Your task to perform on an android device: Go to Maps Image 0: 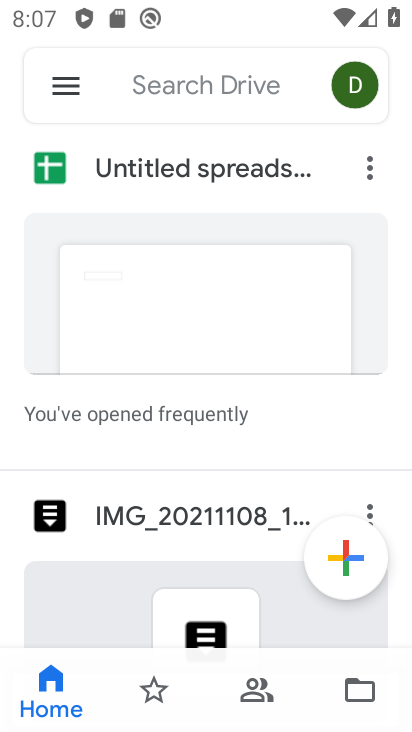
Step 0: press home button
Your task to perform on an android device: Go to Maps Image 1: 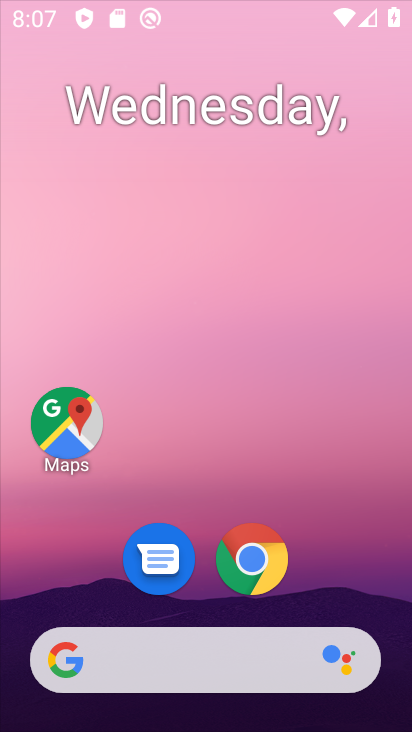
Step 1: drag from (220, 591) to (283, 120)
Your task to perform on an android device: Go to Maps Image 2: 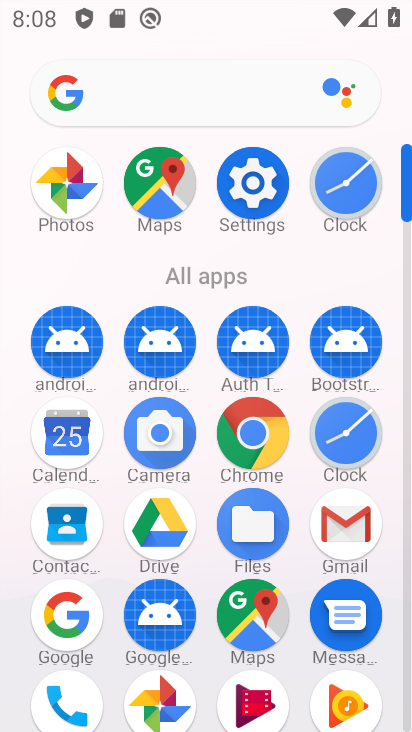
Step 2: click (258, 603)
Your task to perform on an android device: Go to Maps Image 3: 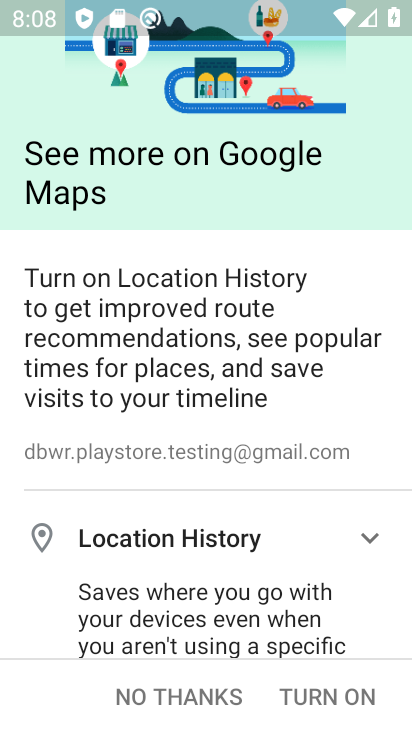
Step 3: click (337, 700)
Your task to perform on an android device: Go to Maps Image 4: 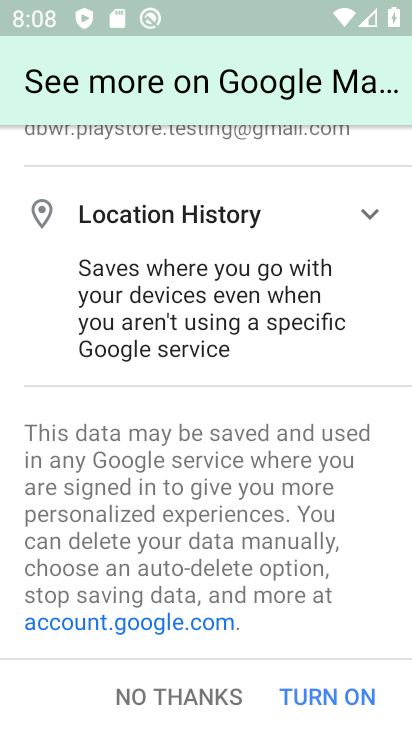
Step 4: click (337, 700)
Your task to perform on an android device: Go to Maps Image 5: 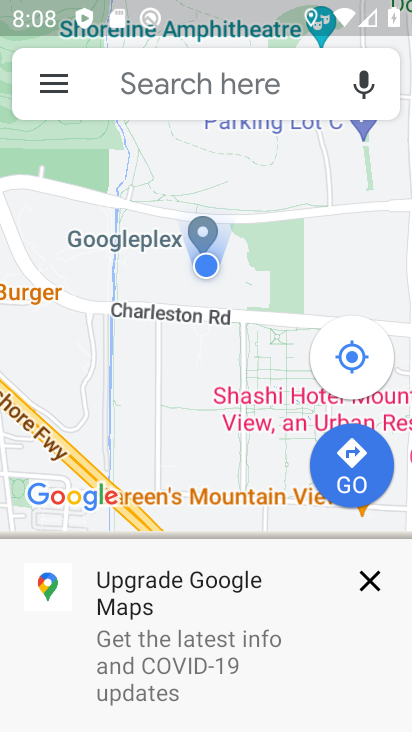
Step 5: click (371, 578)
Your task to perform on an android device: Go to Maps Image 6: 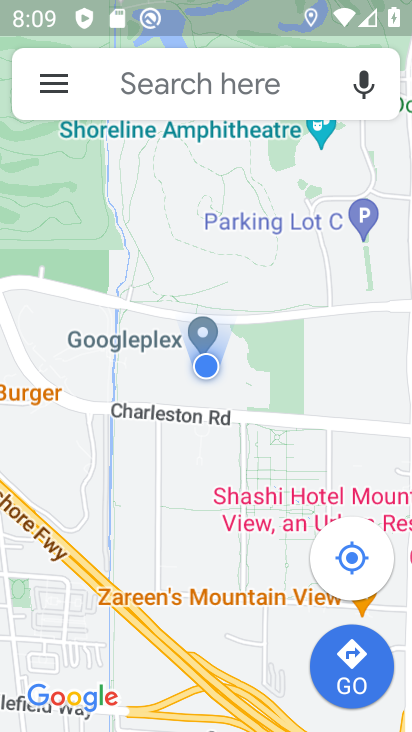
Step 6: task complete